Your task to perform on an android device: visit the assistant section in the google photos Image 0: 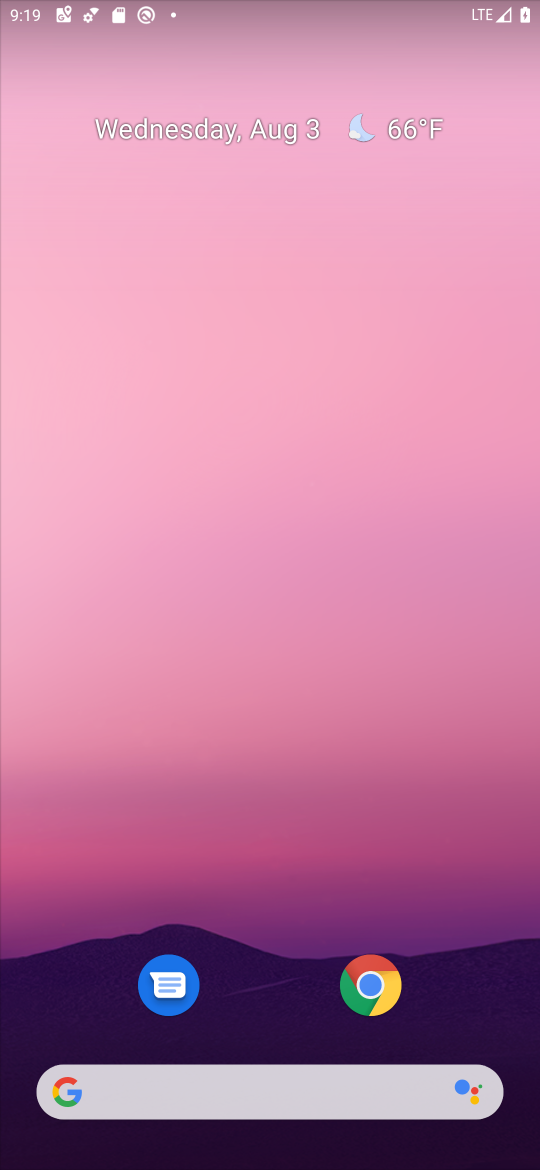
Step 0: drag from (275, 907) to (314, 382)
Your task to perform on an android device: visit the assistant section in the google photos Image 1: 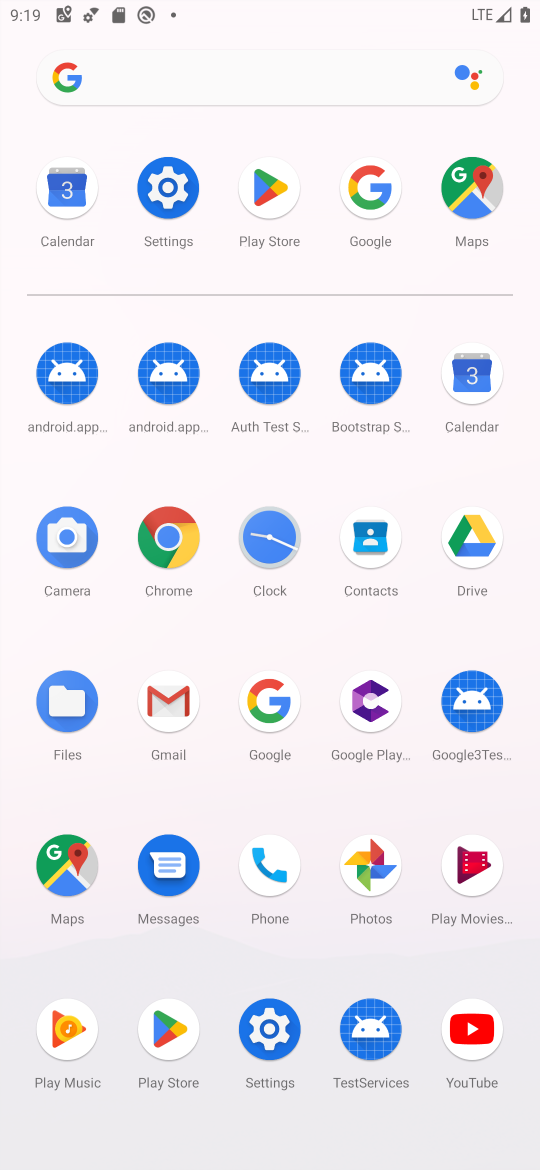
Step 1: click (377, 860)
Your task to perform on an android device: visit the assistant section in the google photos Image 2: 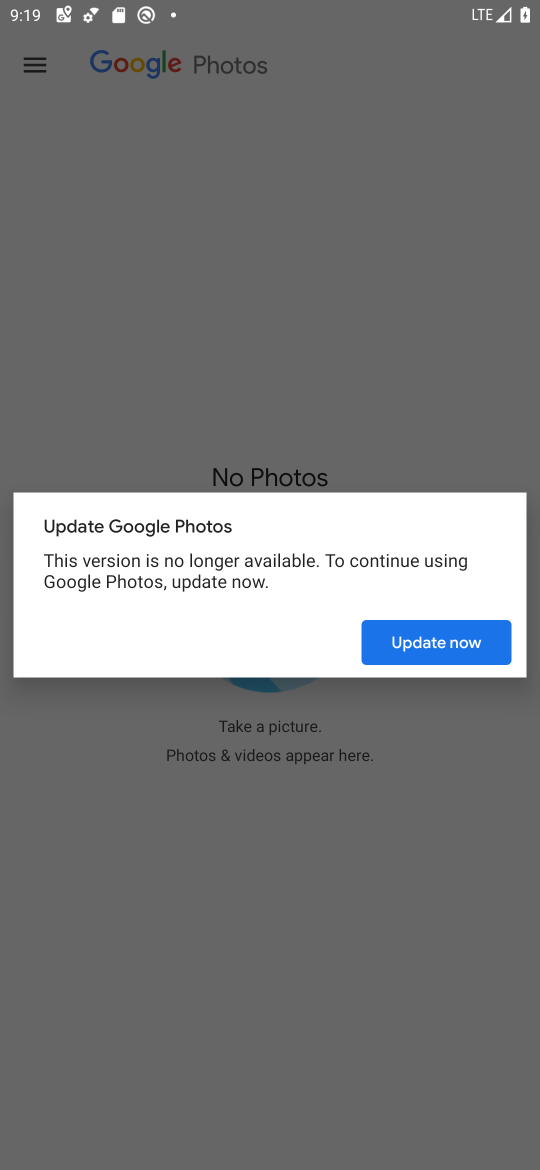
Step 2: click (428, 647)
Your task to perform on an android device: visit the assistant section in the google photos Image 3: 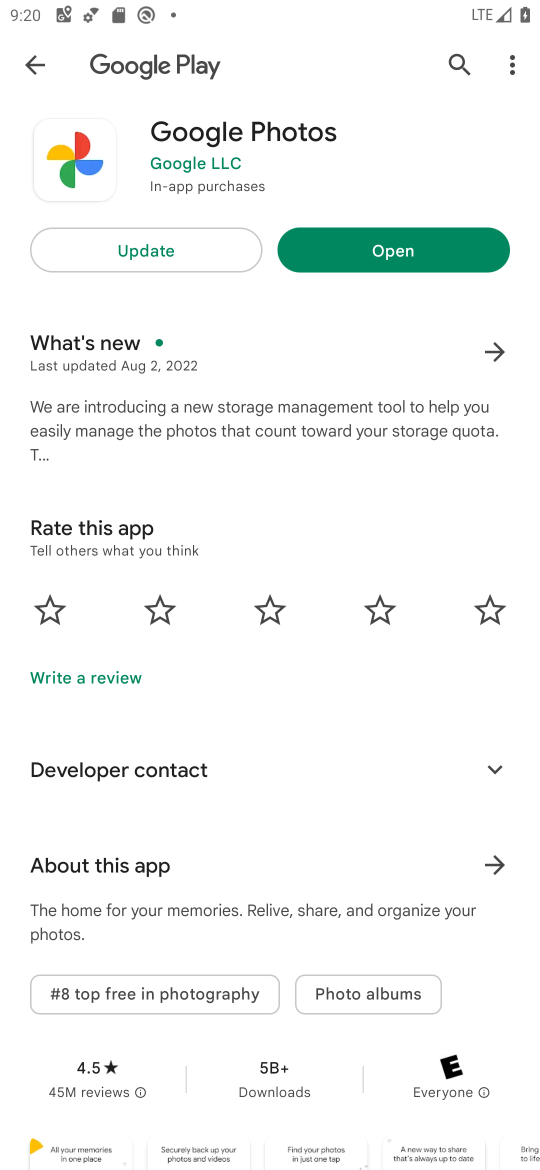
Step 3: click (351, 242)
Your task to perform on an android device: visit the assistant section in the google photos Image 4: 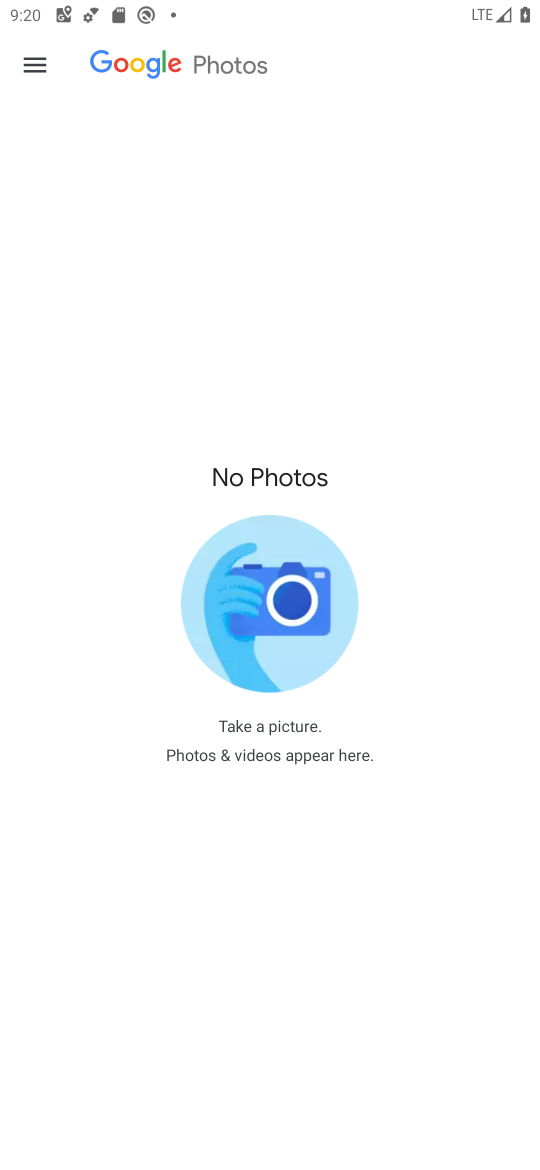
Step 4: task complete